Your task to perform on an android device: Open location settings Image 0: 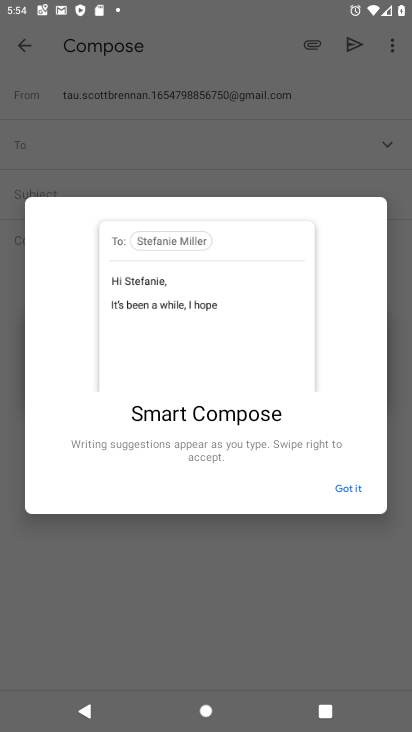
Step 0: press home button
Your task to perform on an android device: Open location settings Image 1: 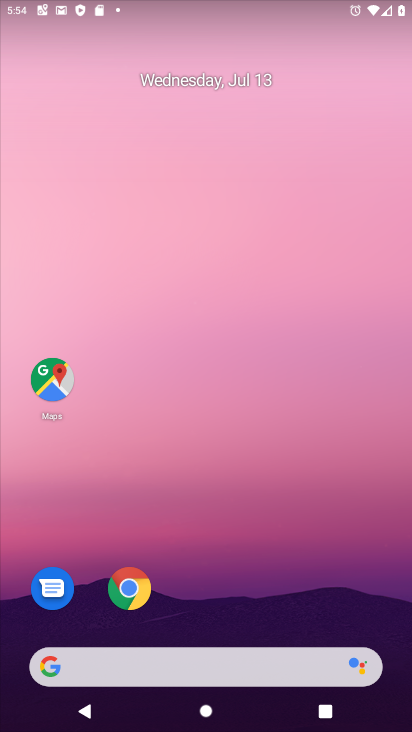
Step 1: drag from (198, 396) to (212, 159)
Your task to perform on an android device: Open location settings Image 2: 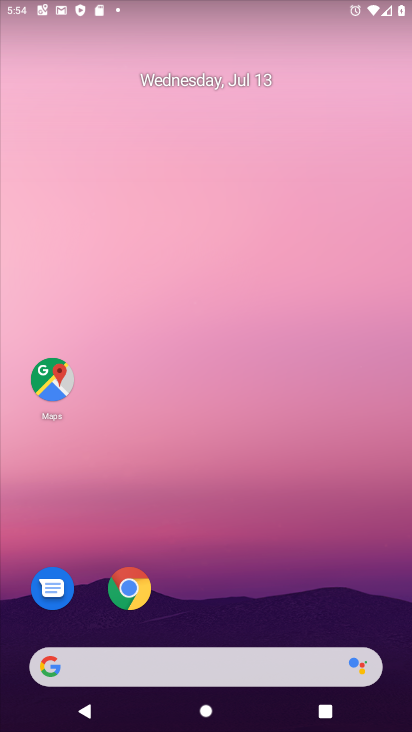
Step 2: drag from (199, 437) to (206, 63)
Your task to perform on an android device: Open location settings Image 3: 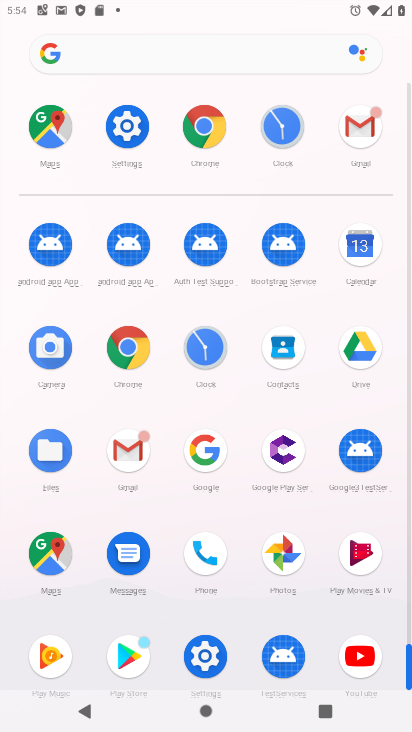
Step 3: click (118, 132)
Your task to perform on an android device: Open location settings Image 4: 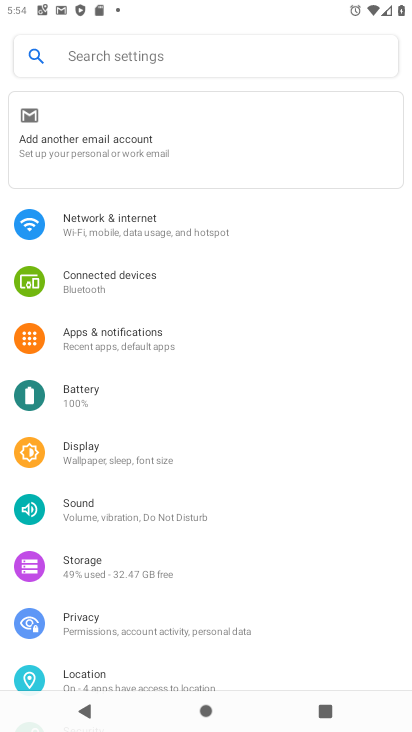
Step 4: click (95, 672)
Your task to perform on an android device: Open location settings Image 5: 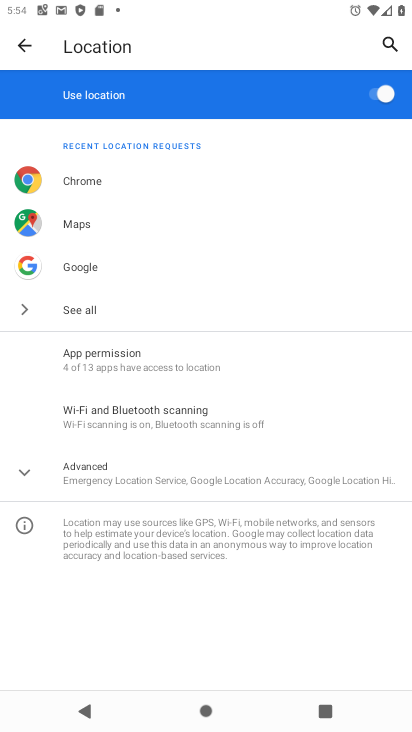
Step 5: task complete